Your task to perform on an android device: Open ESPN.com Image 0: 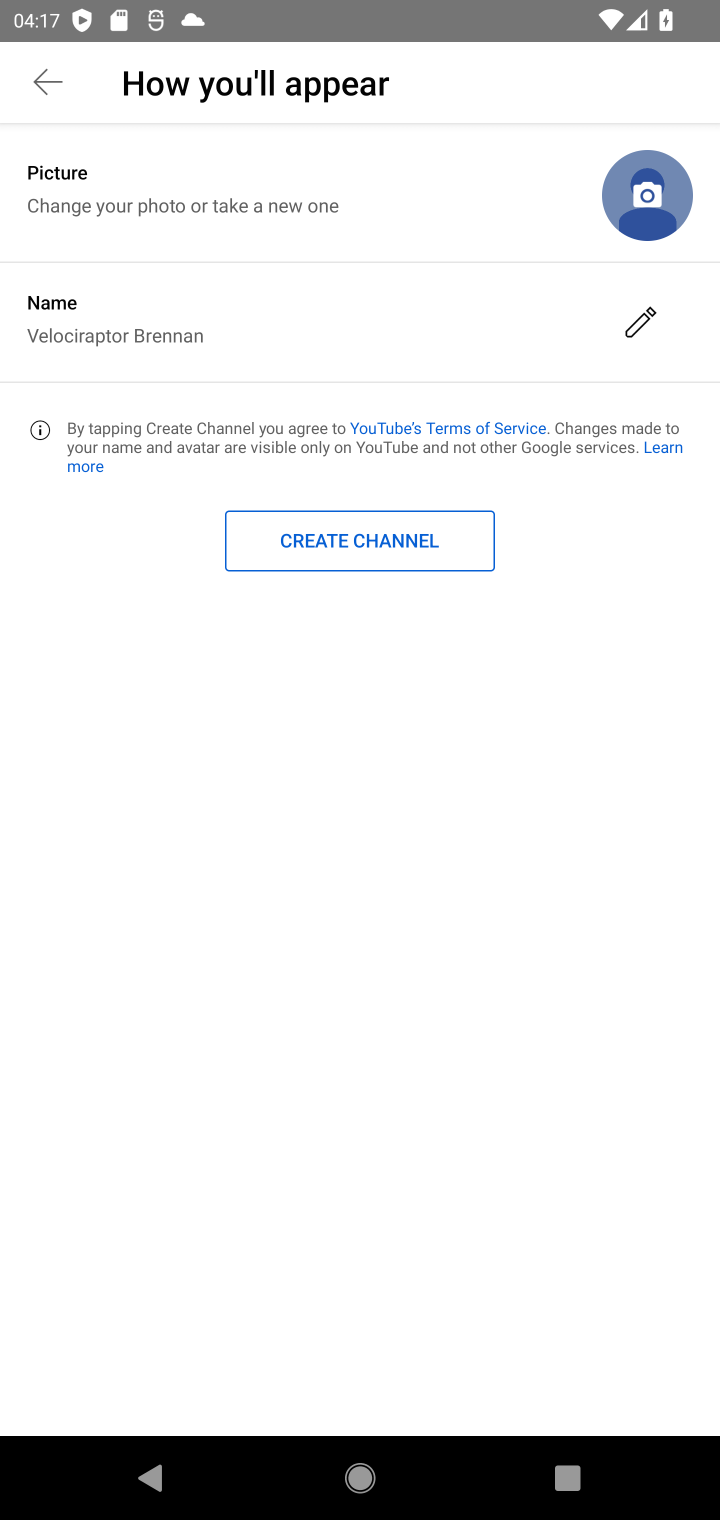
Step 0: press home button
Your task to perform on an android device: Open ESPN.com Image 1: 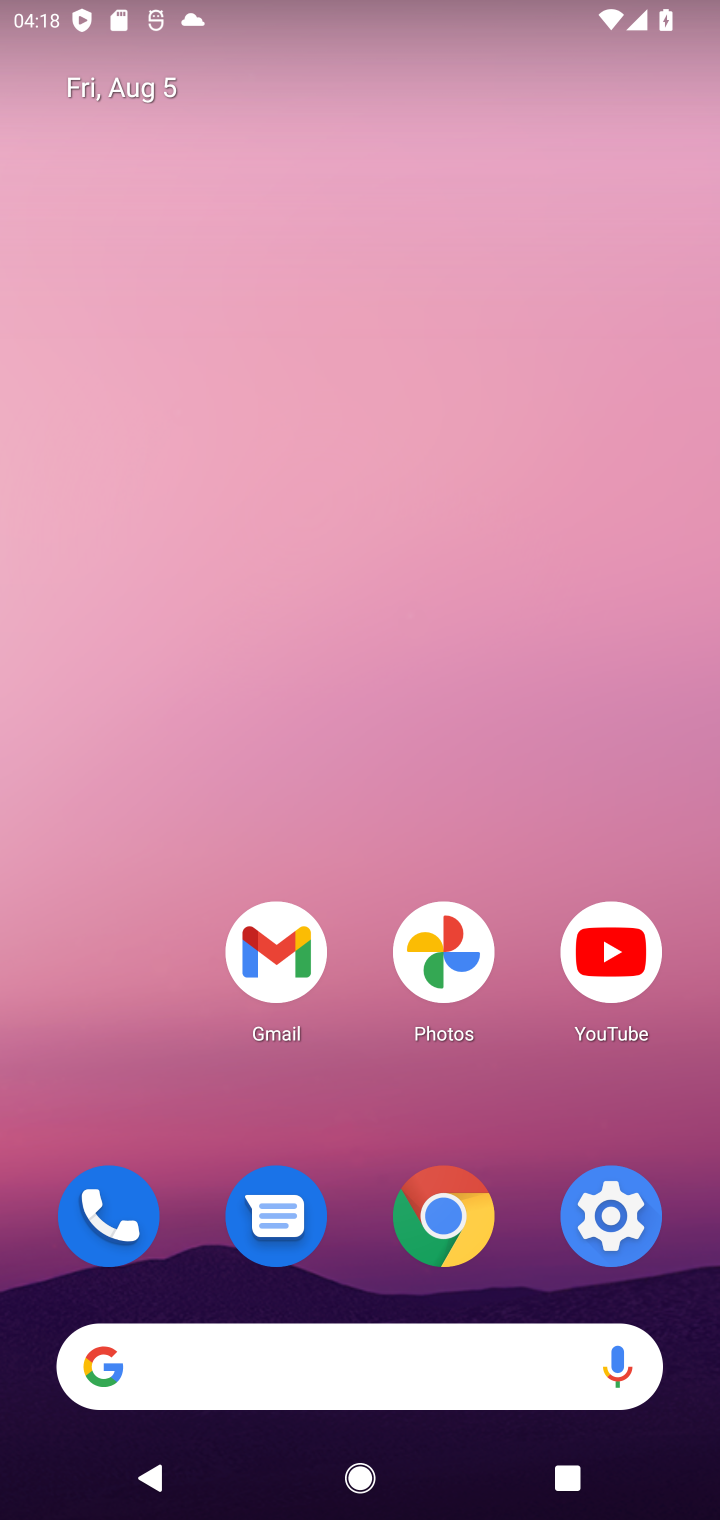
Step 1: click (318, 1352)
Your task to perform on an android device: Open ESPN.com Image 2: 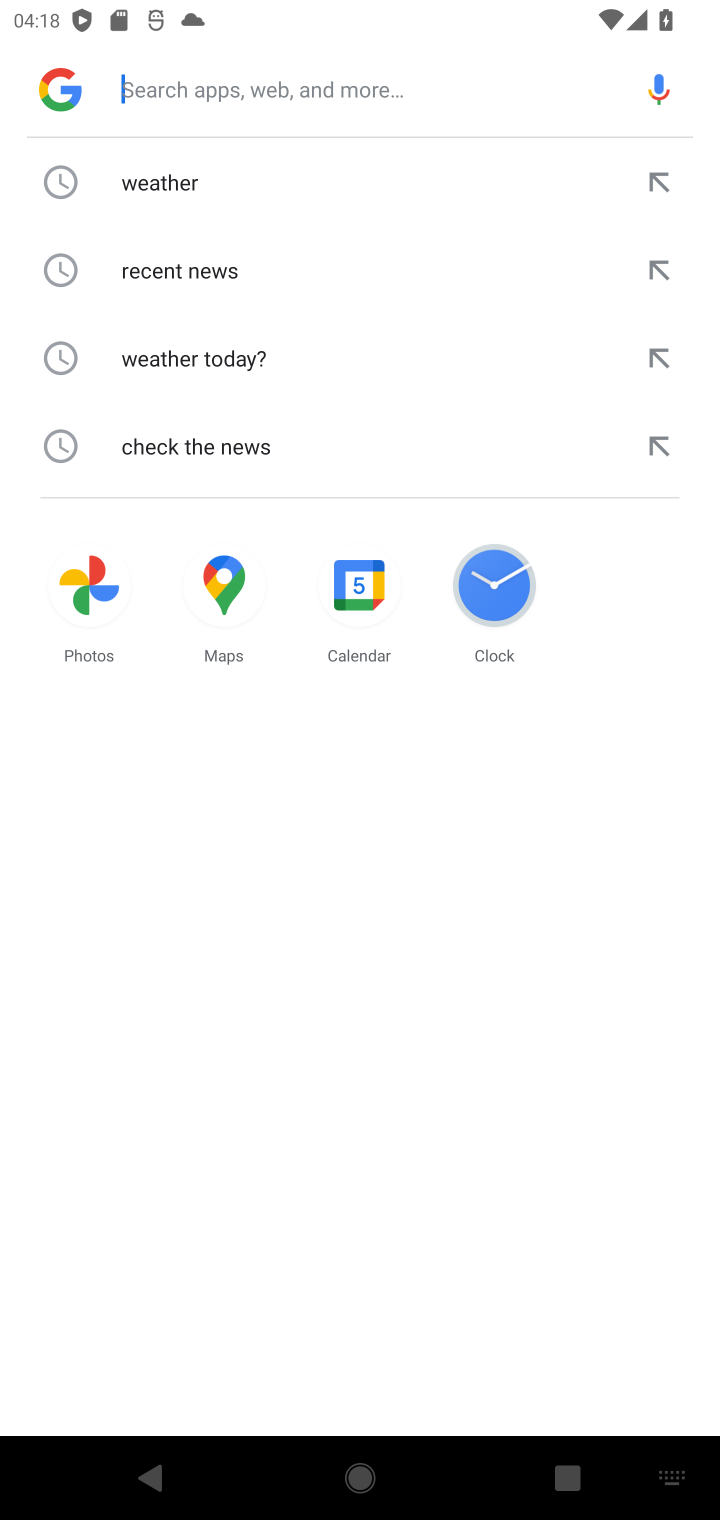
Step 2: type "espn.com"
Your task to perform on an android device: Open ESPN.com Image 3: 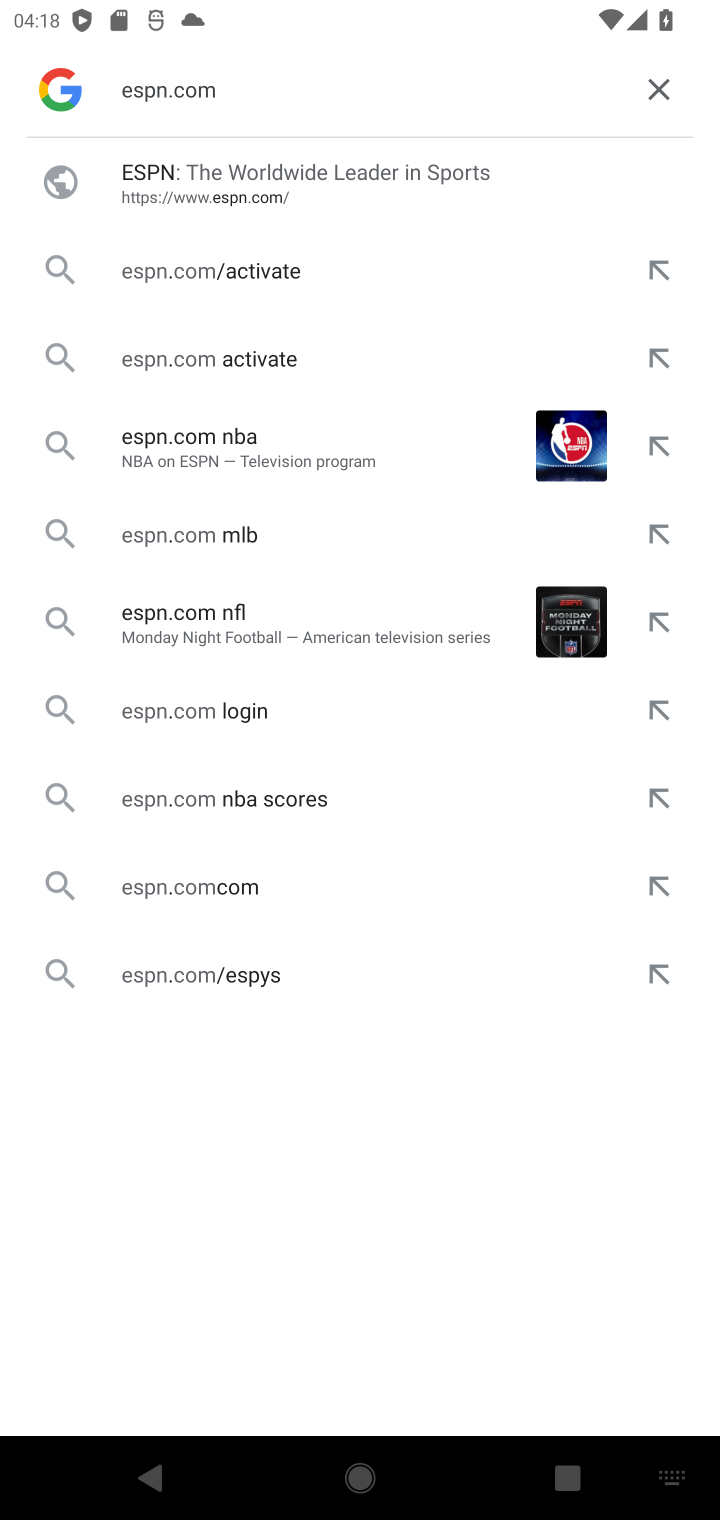
Step 3: click (440, 137)
Your task to perform on an android device: Open ESPN.com Image 4: 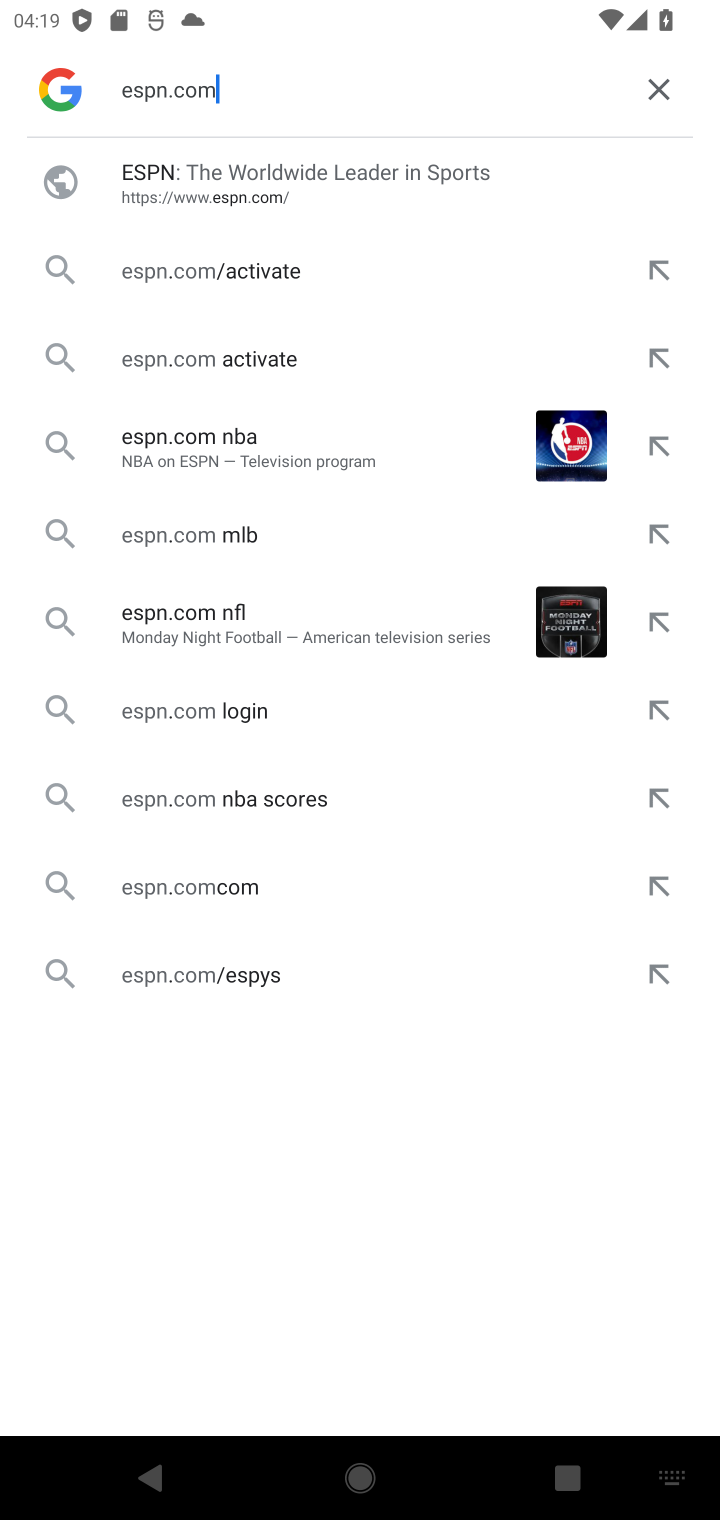
Step 4: click (456, 168)
Your task to perform on an android device: Open ESPN.com Image 5: 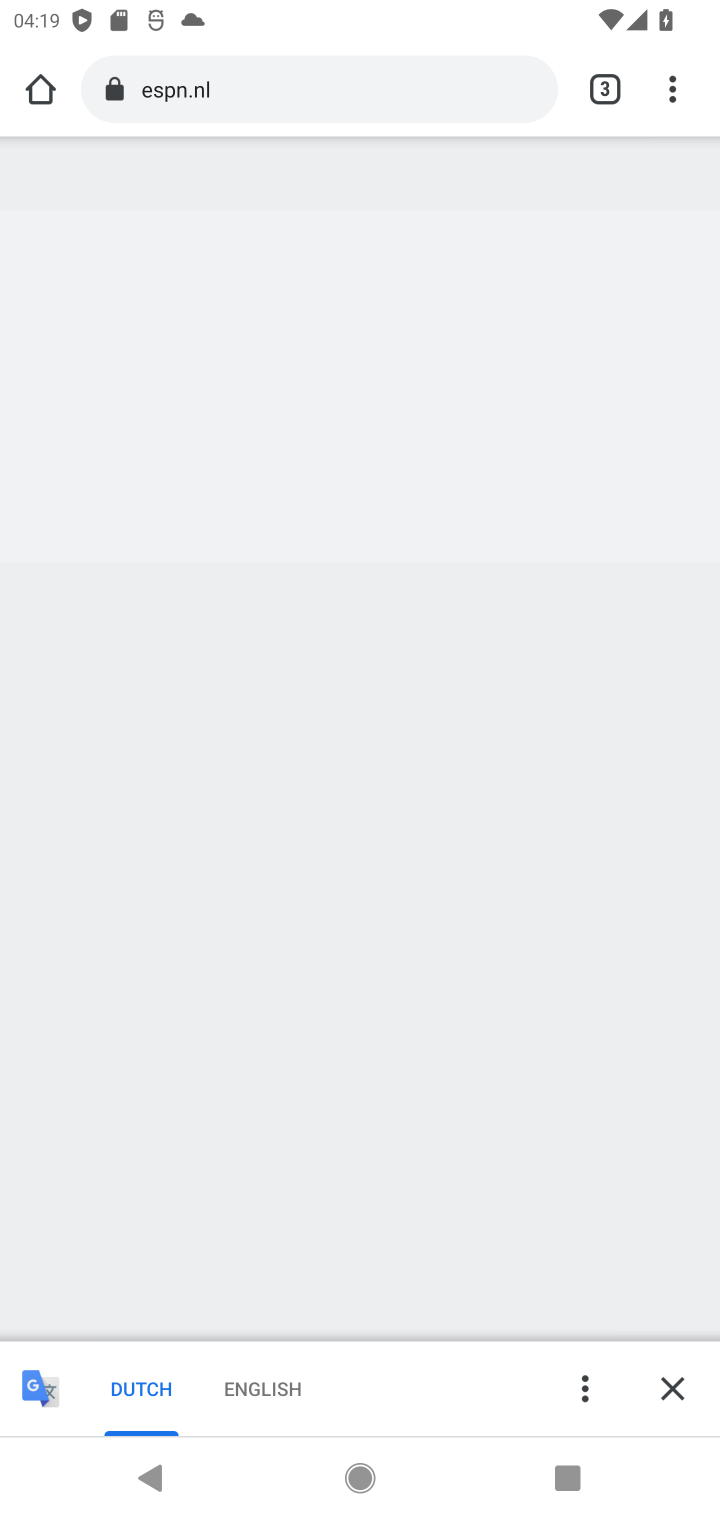
Step 5: task complete